Your task to perform on an android device: set an alarm Image 0: 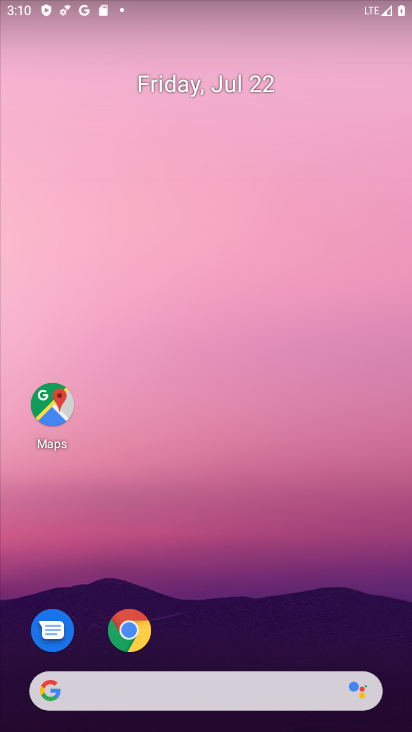
Step 0: drag from (250, 688) to (232, 21)
Your task to perform on an android device: set an alarm Image 1: 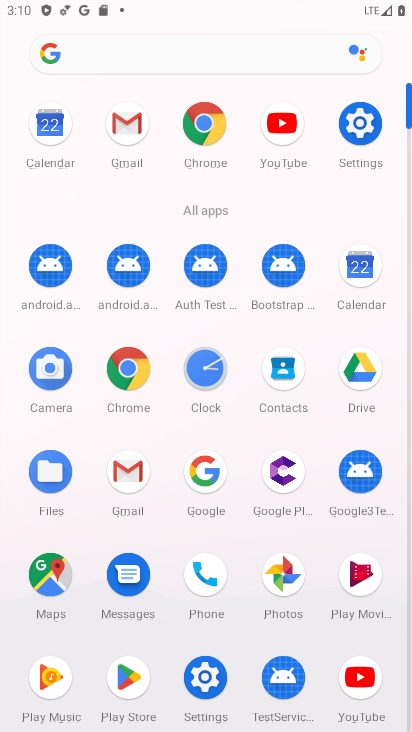
Step 1: click (208, 363)
Your task to perform on an android device: set an alarm Image 2: 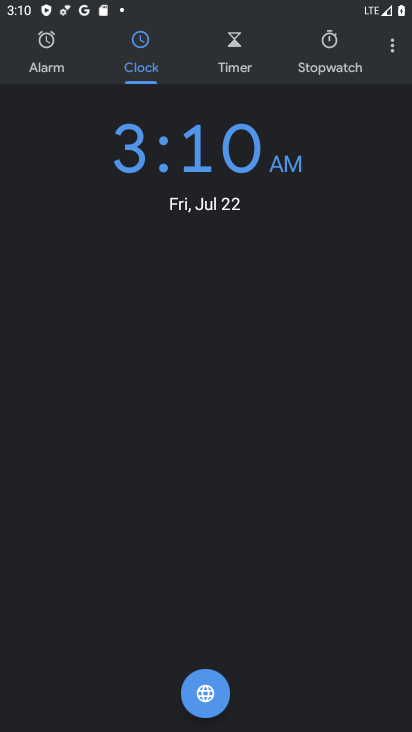
Step 2: click (63, 66)
Your task to perform on an android device: set an alarm Image 3: 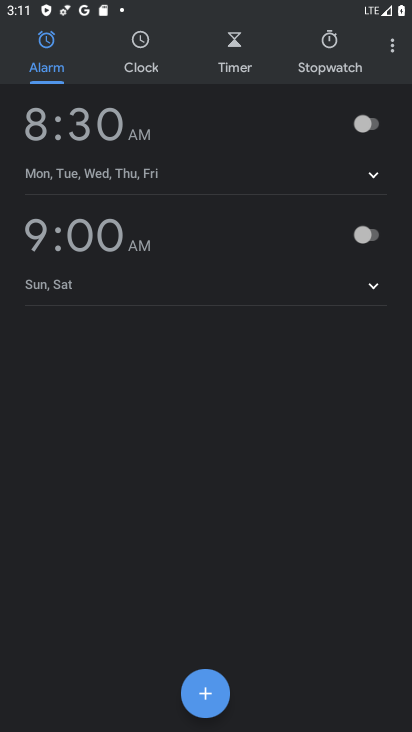
Step 3: click (218, 689)
Your task to perform on an android device: set an alarm Image 4: 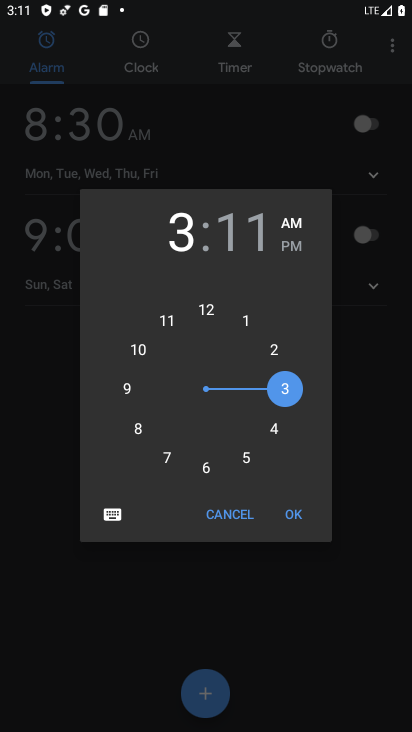
Step 4: click (208, 470)
Your task to perform on an android device: set an alarm Image 5: 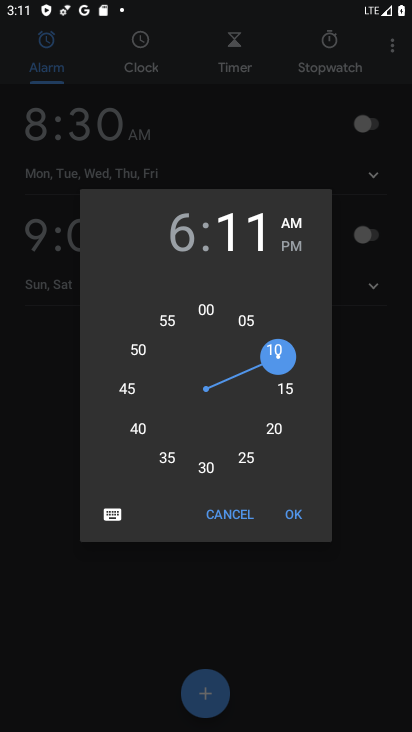
Step 5: click (283, 512)
Your task to perform on an android device: set an alarm Image 6: 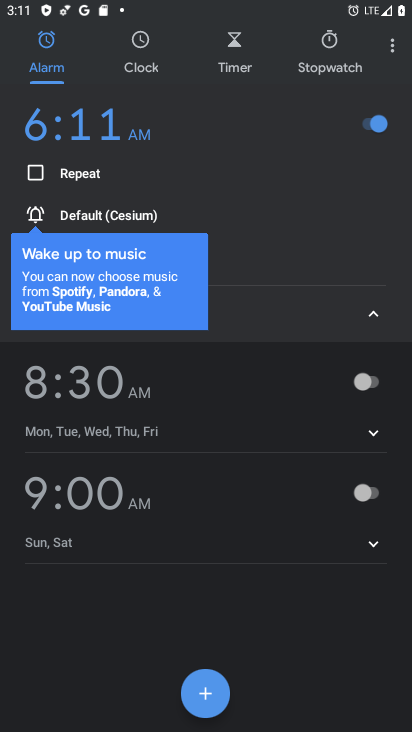
Step 6: task complete